Your task to perform on an android device: Is it going to rain this weekend? Image 0: 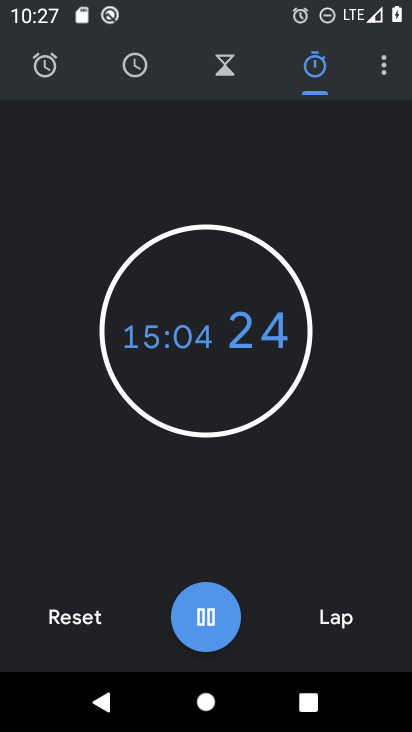
Step 0: press home button
Your task to perform on an android device: Is it going to rain this weekend? Image 1: 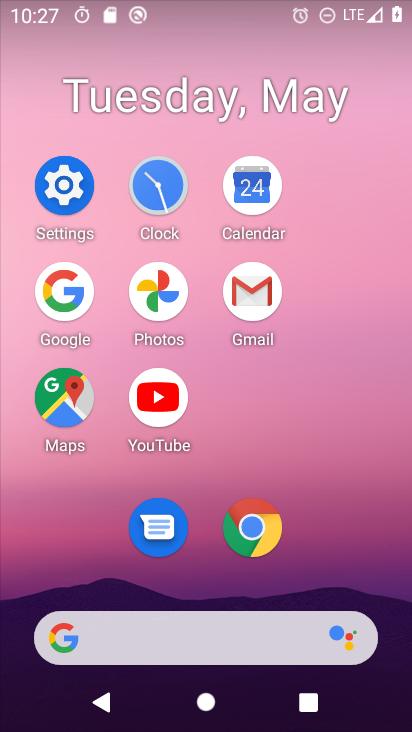
Step 1: click (78, 296)
Your task to perform on an android device: Is it going to rain this weekend? Image 2: 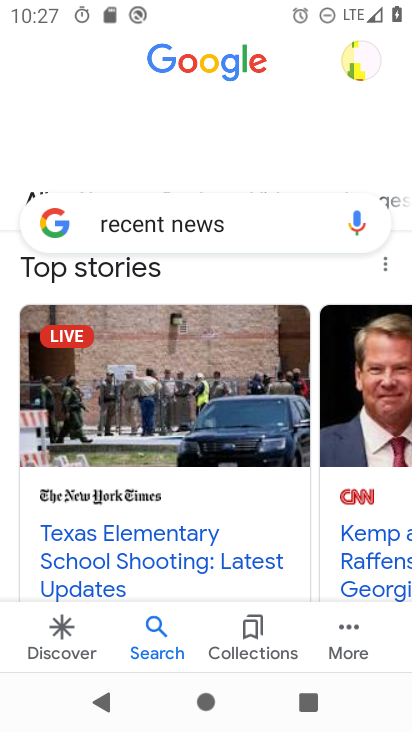
Step 2: click (248, 224)
Your task to perform on an android device: Is it going to rain this weekend? Image 3: 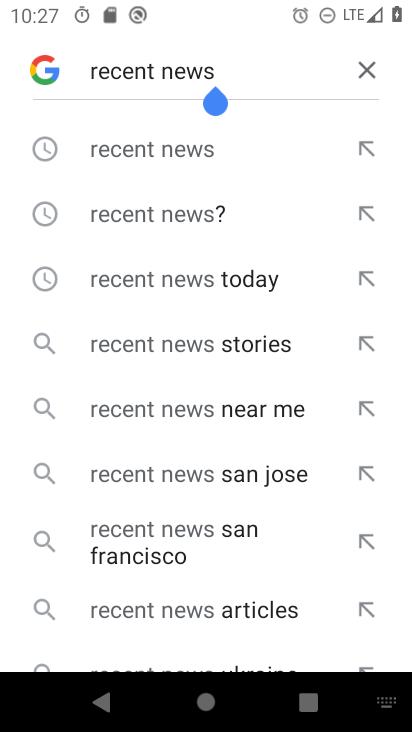
Step 3: click (378, 60)
Your task to perform on an android device: Is it going to rain this weekend? Image 4: 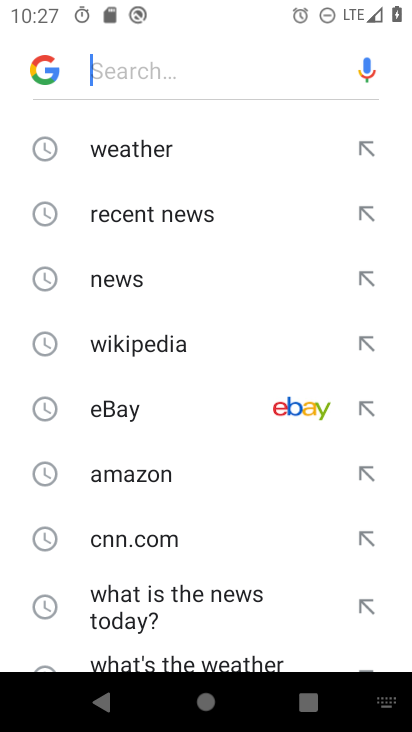
Step 4: click (189, 142)
Your task to perform on an android device: Is it going to rain this weekend? Image 5: 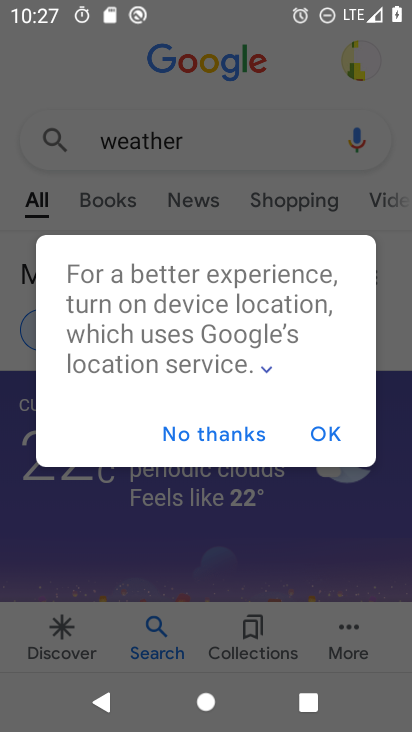
Step 5: click (311, 438)
Your task to perform on an android device: Is it going to rain this weekend? Image 6: 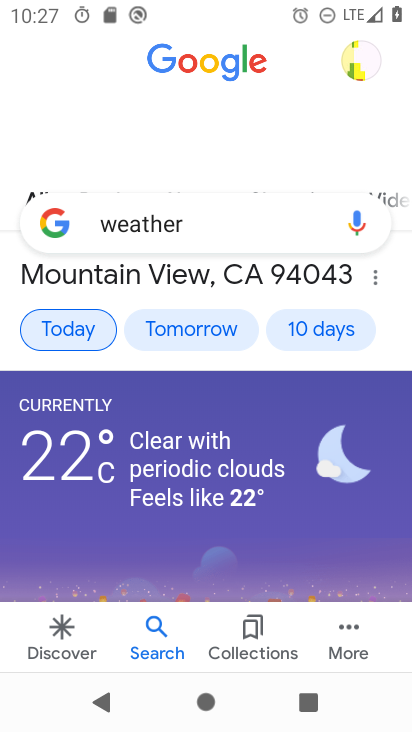
Step 6: click (323, 335)
Your task to perform on an android device: Is it going to rain this weekend? Image 7: 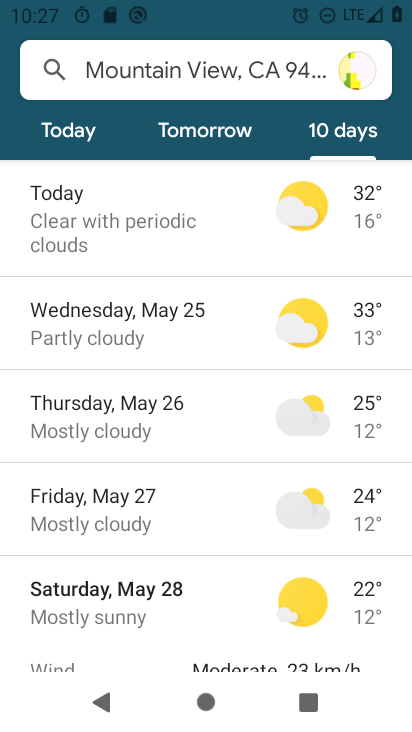
Step 7: task complete